Your task to perform on an android device: Open privacy settings Image 0: 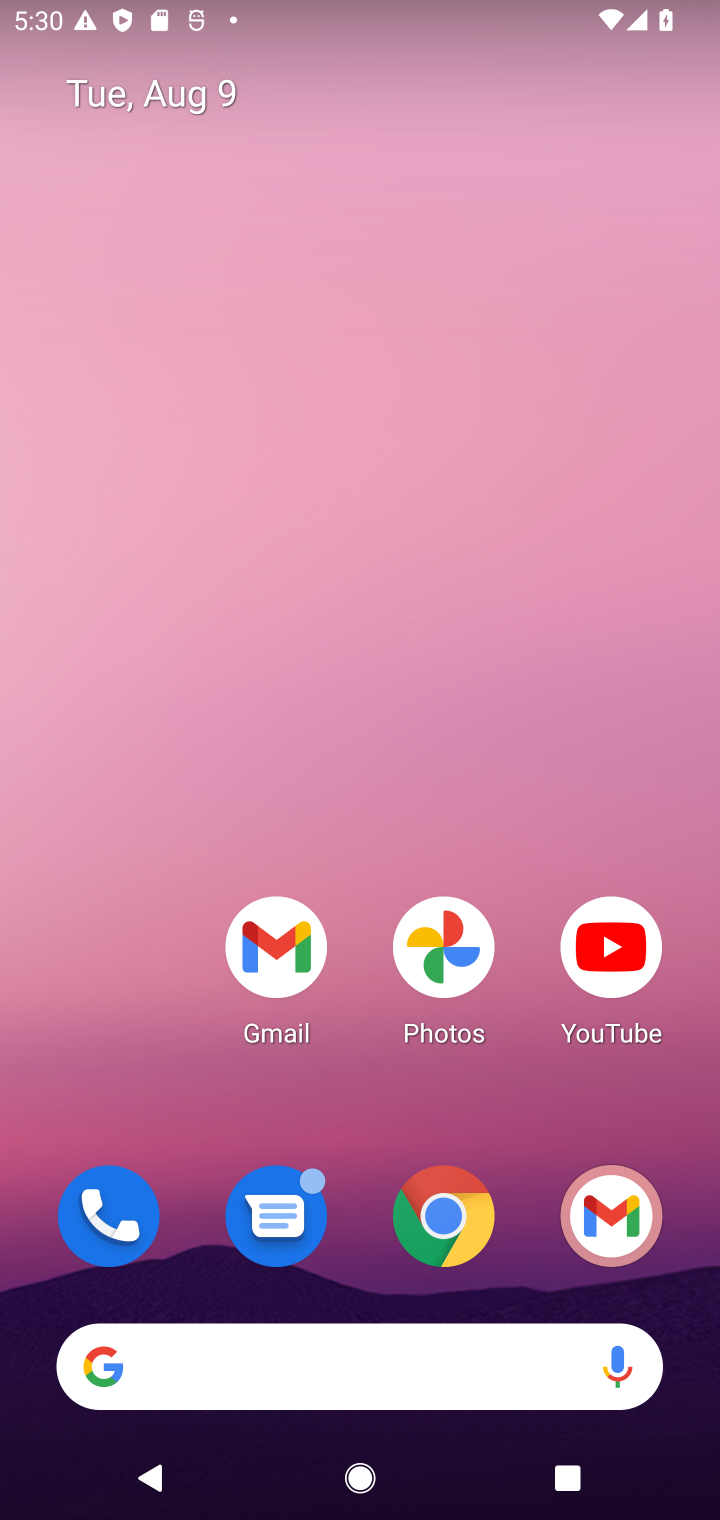
Step 0: drag from (404, 765) to (404, 613)
Your task to perform on an android device: Open privacy settings Image 1: 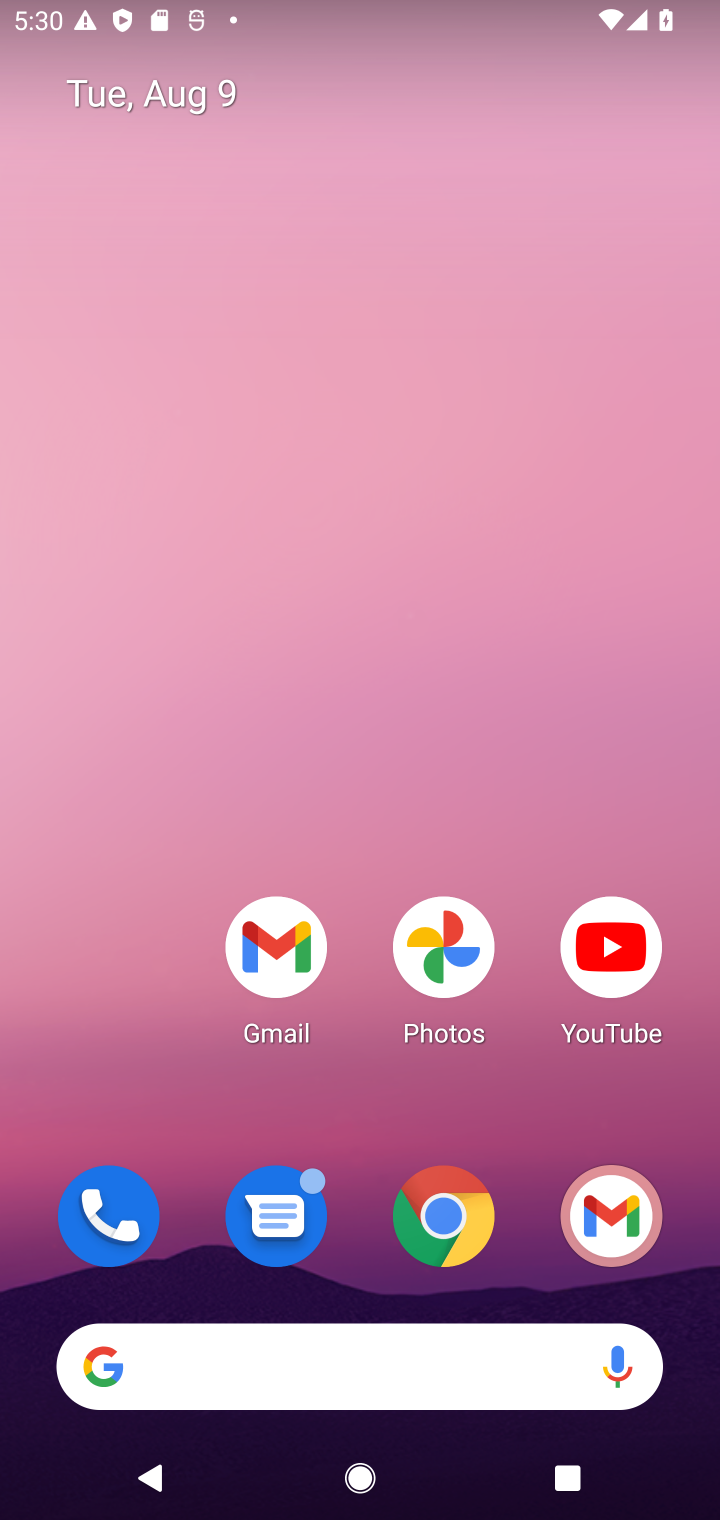
Step 1: drag from (325, 1121) to (434, 273)
Your task to perform on an android device: Open privacy settings Image 2: 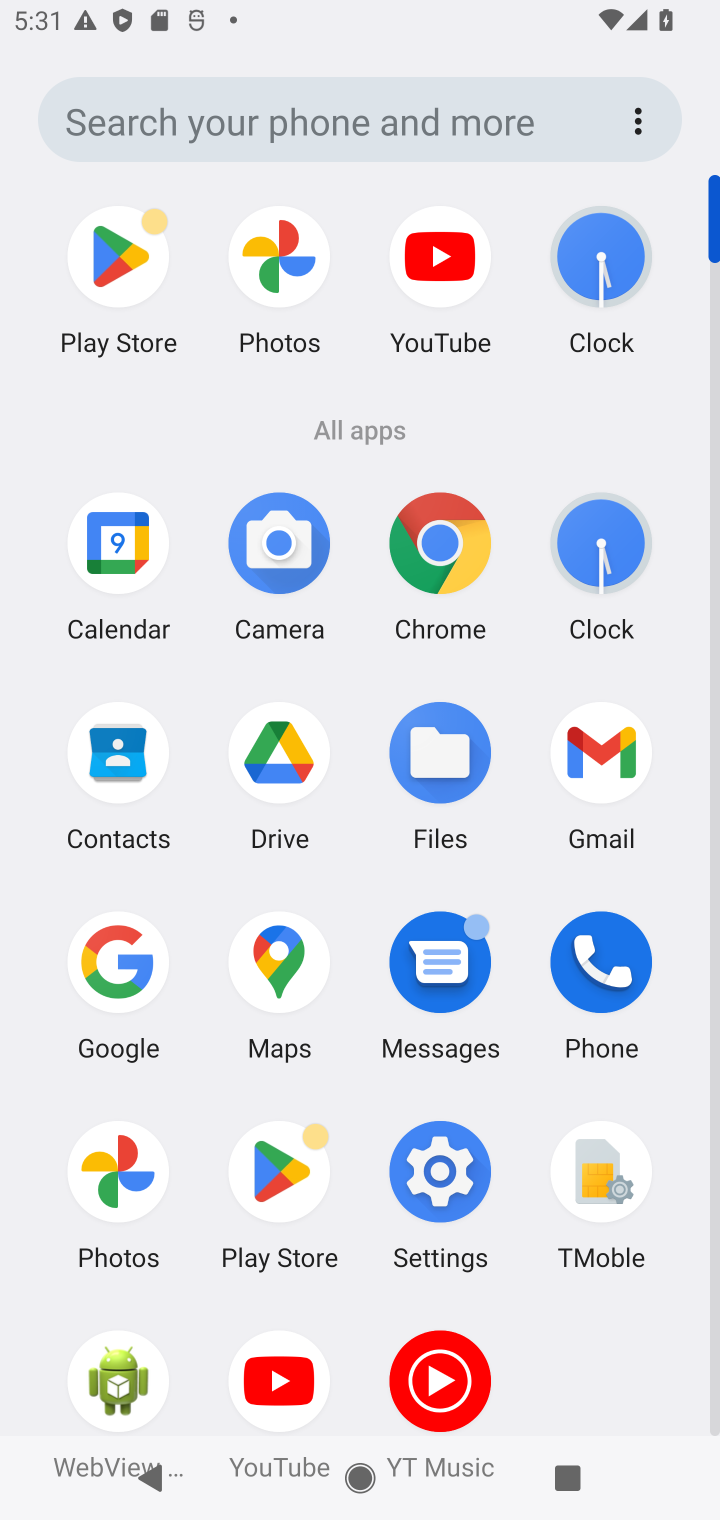
Step 2: click (441, 1169)
Your task to perform on an android device: Open privacy settings Image 3: 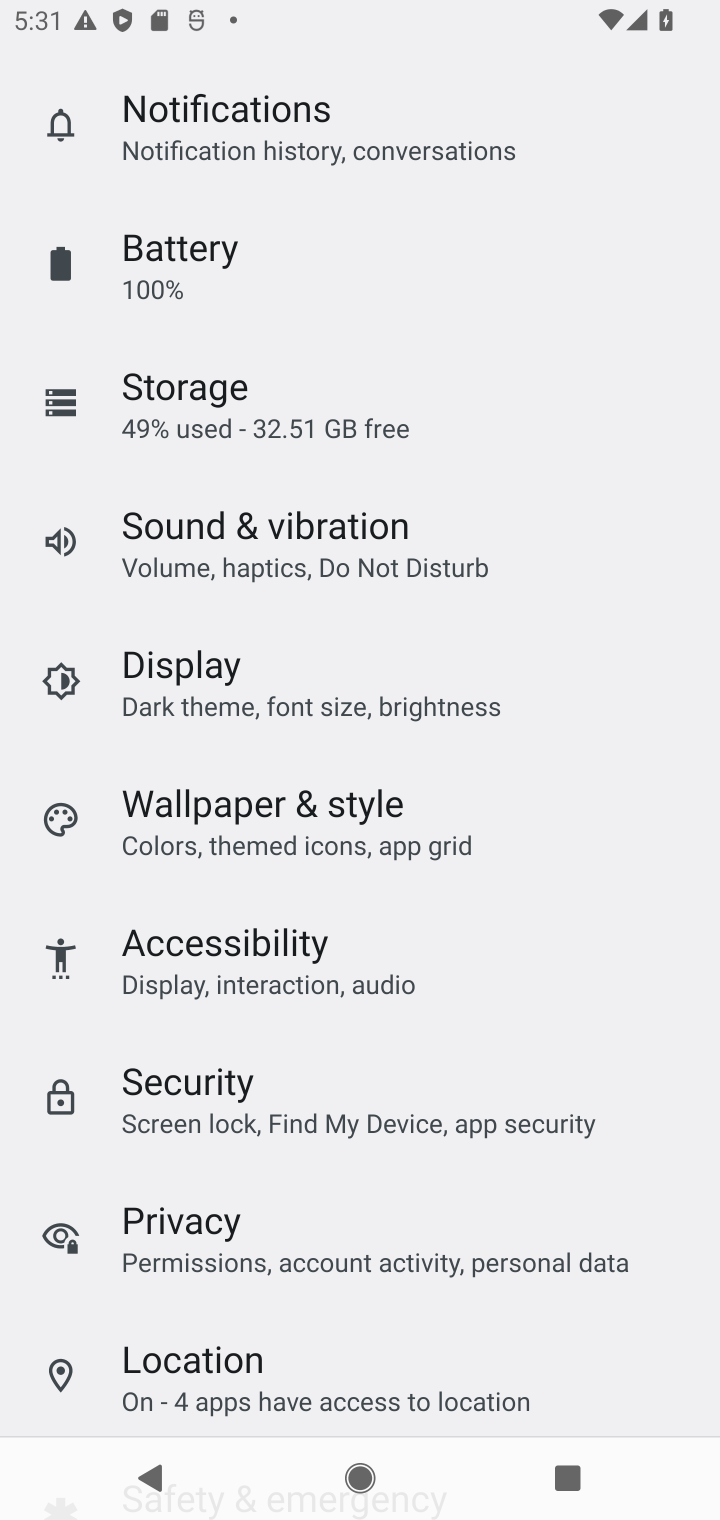
Step 3: click (224, 1221)
Your task to perform on an android device: Open privacy settings Image 4: 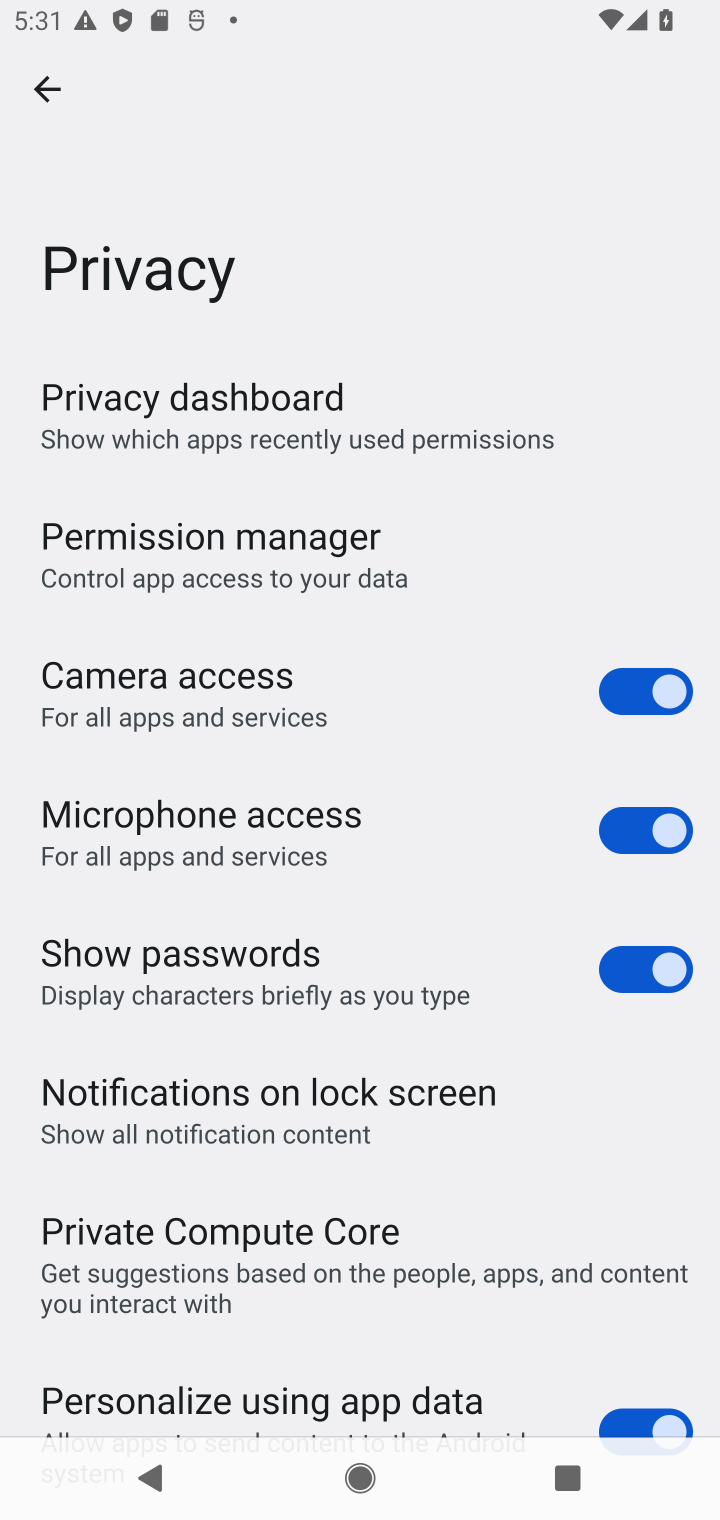
Step 4: task complete